Your task to perform on an android device: What's the weather going to be this weekend? Image 0: 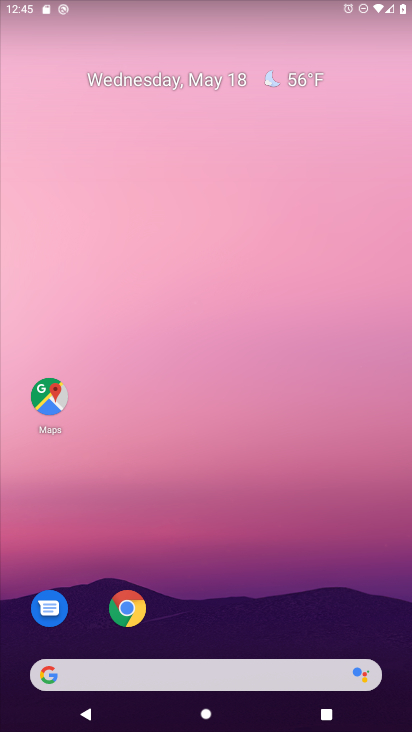
Step 0: drag from (244, 695) to (231, 201)
Your task to perform on an android device: What's the weather going to be this weekend? Image 1: 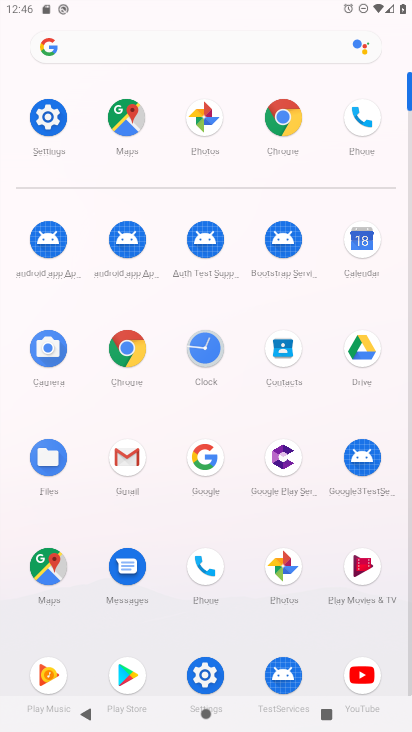
Step 1: click (143, 37)
Your task to perform on an android device: What's the weather going to be this weekend? Image 2: 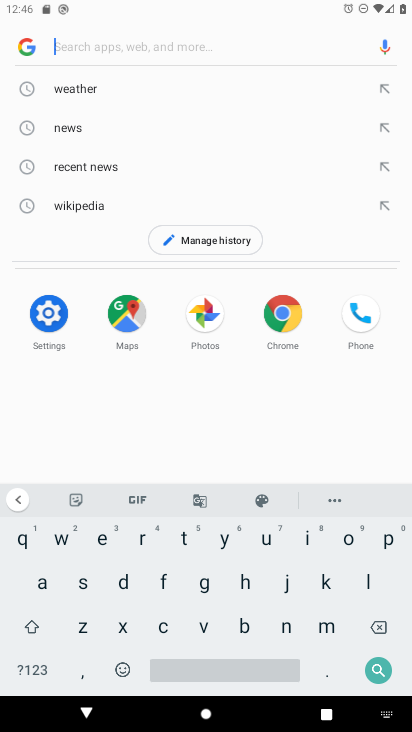
Step 2: click (98, 78)
Your task to perform on an android device: What's the weather going to be this weekend? Image 3: 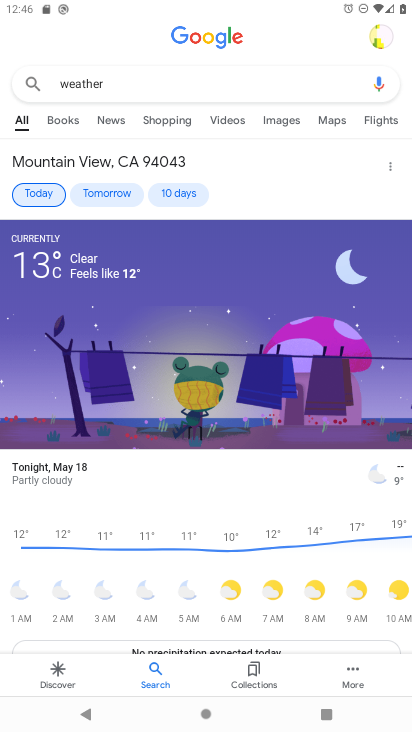
Step 3: click (183, 190)
Your task to perform on an android device: What's the weather going to be this weekend? Image 4: 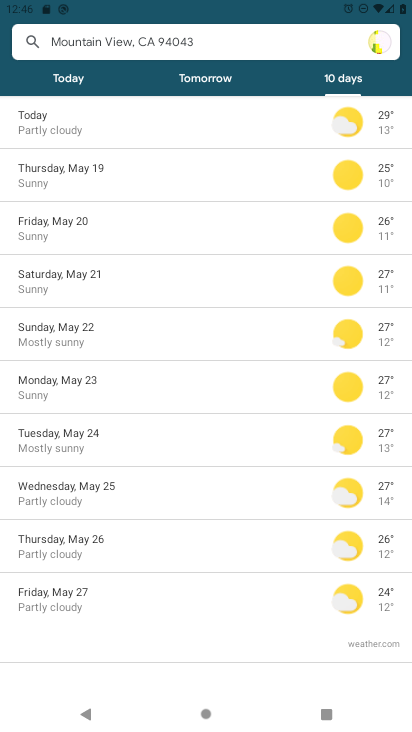
Step 4: task complete